Your task to perform on an android device: Clear the cart on amazon. Add acer nitro to the cart on amazon, then select checkout. Image 0: 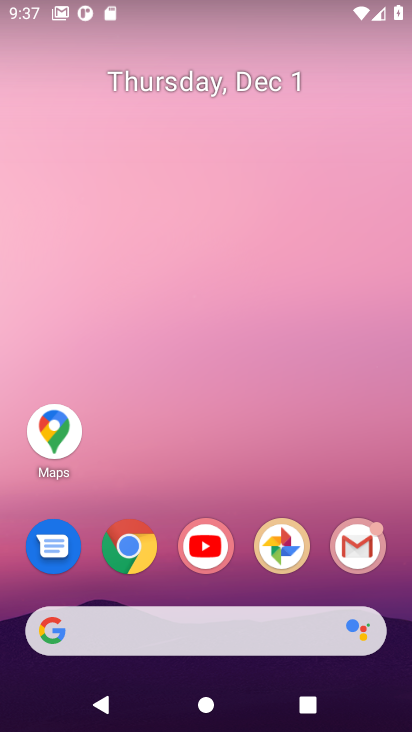
Step 0: click (131, 561)
Your task to perform on an android device: Clear the cart on amazon. Add acer nitro to the cart on amazon, then select checkout. Image 1: 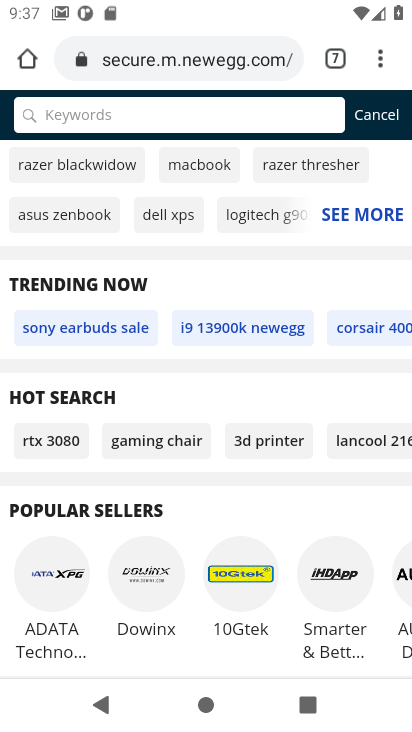
Step 1: click (142, 65)
Your task to perform on an android device: Clear the cart on amazon. Add acer nitro to the cart on amazon, then select checkout. Image 2: 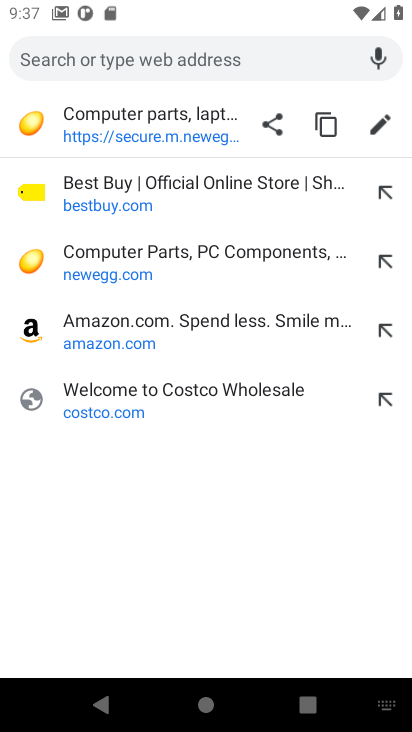
Step 2: click (70, 328)
Your task to perform on an android device: Clear the cart on amazon. Add acer nitro to the cart on amazon, then select checkout. Image 3: 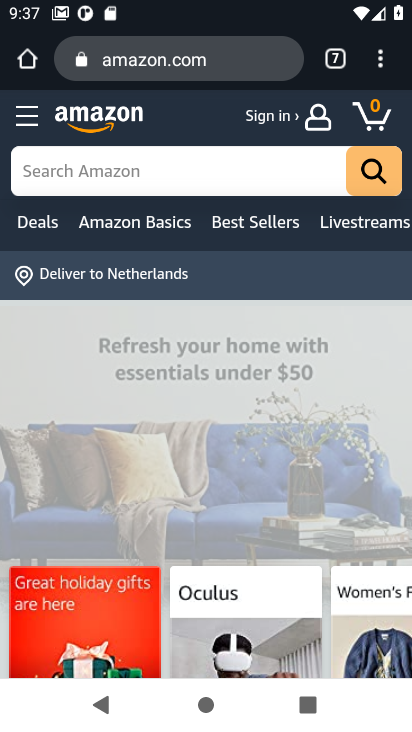
Step 3: click (368, 114)
Your task to perform on an android device: Clear the cart on amazon. Add acer nitro to the cart on amazon, then select checkout. Image 4: 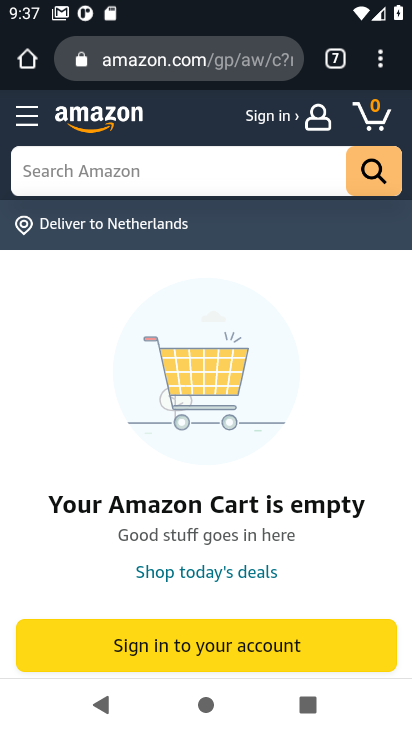
Step 4: click (57, 174)
Your task to perform on an android device: Clear the cart on amazon. Add acer nitro to the cart on amazon, then select checkout. Image 5: 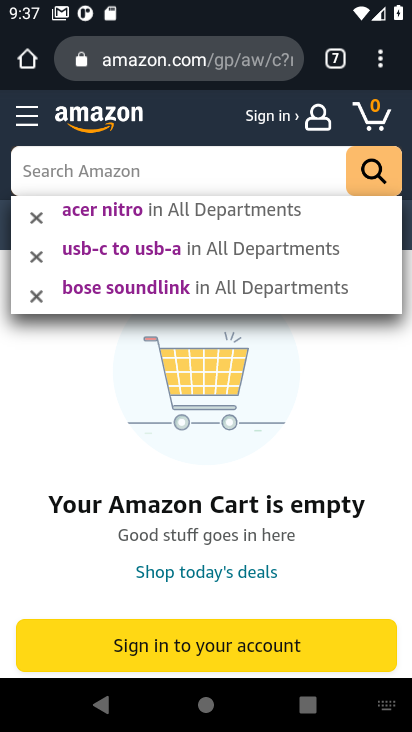
Step 5: type "acer nitro"
Your task to perform on an android device: Clear the cart on amazon. Add acer nitro to the cart on amazon, then select checkout. Image 6: 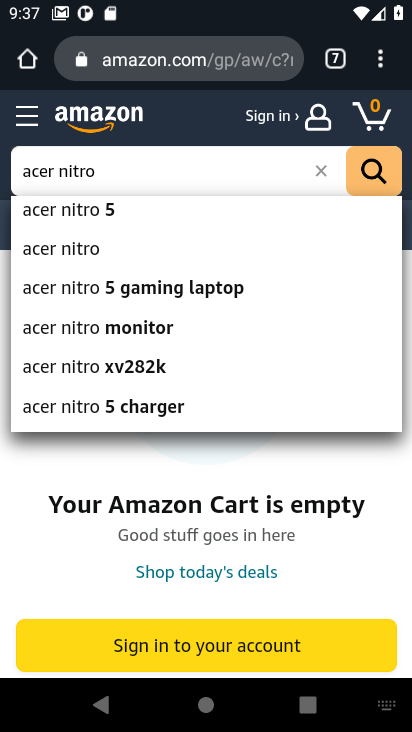
Step 6: click (88, 255)
Your task to perform on an android device: Clear the cart on amazon. Add acer nitro to the cart on amazon, then select checkout. Image 7: 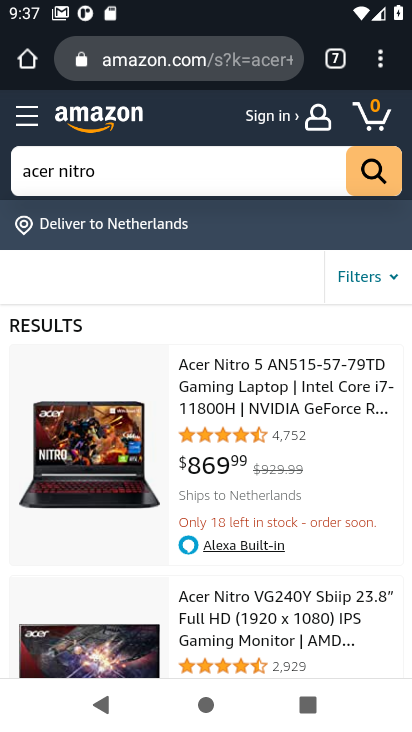
Step 7: click (218, 403)
Your task to perform on an android device: Clear the cart on amazon. Add acer nitro to the cart on amazon, then select checkout. Image 8: 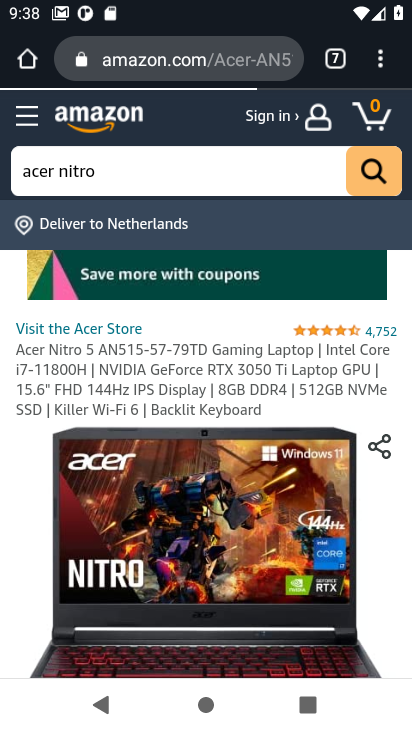
Step 8: drag from (199, 576) to (196, 193)
Your task to perform on an android device: Clear the cart on amazon. Add acer nitro to the cart on amazon, then select checkout. Image 9: 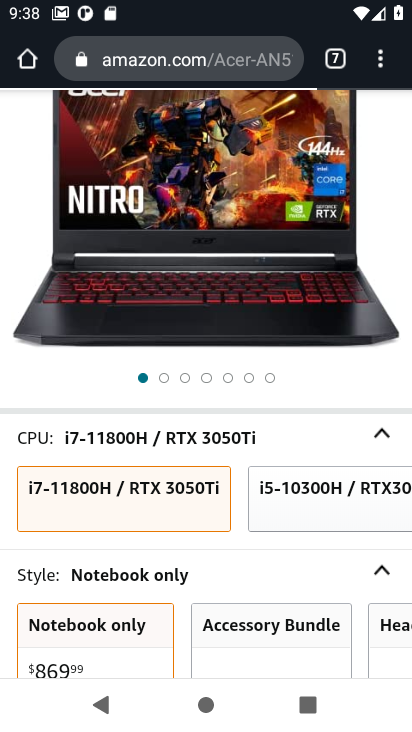
Step 9: drag from (192, 513) to (186, 256)
Your task to perform on an android device: Clear the cart on amazon. Add acer nitro to the cart on amazon, then select checkout. Image 10: 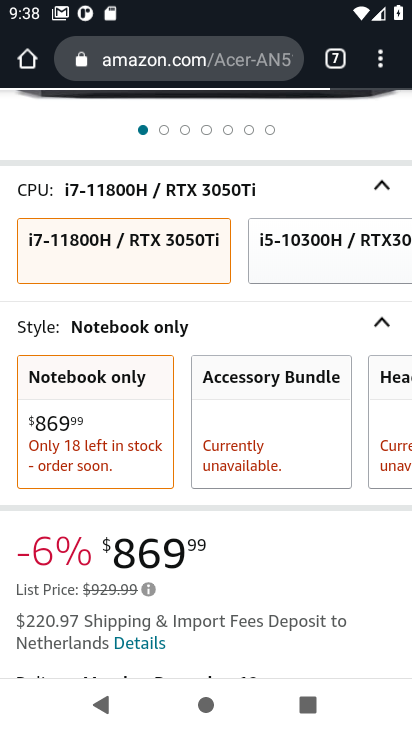
Step 10: drag from (187, 415) to (164, 150)
Your task to perform on an android device: Clear the cart on amazon. Add acer nitro to the cart on amazon, then select checkout. Image 11: 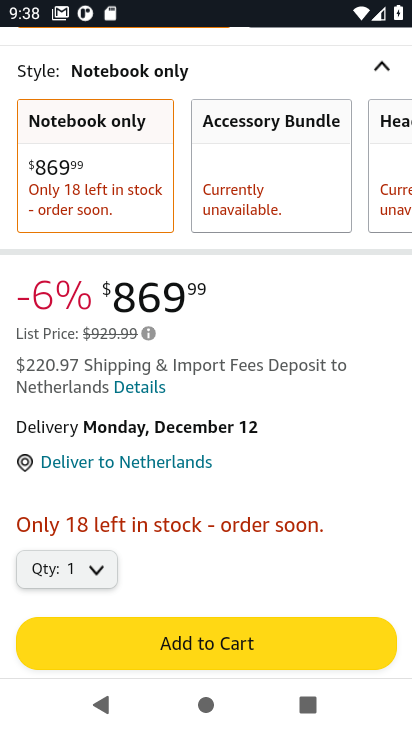
Step 11: drag from (175, 401) to (172, 189)
Your task to perform on an android device: Clear the cart on amazon. Add acer nitro to the cart on amazon, then select checkout. Image 12: 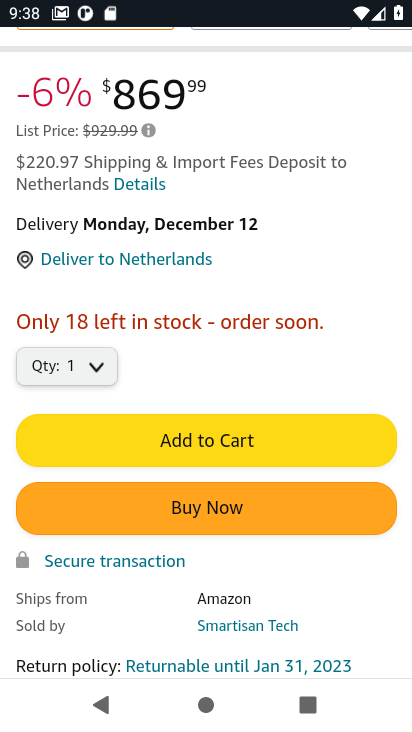
Step 12: click (174, 443)
Your task to perform on an android device: Clear the cart on amazon. Add acer nitro to the cart on amazon, then select checkout. Image 13: 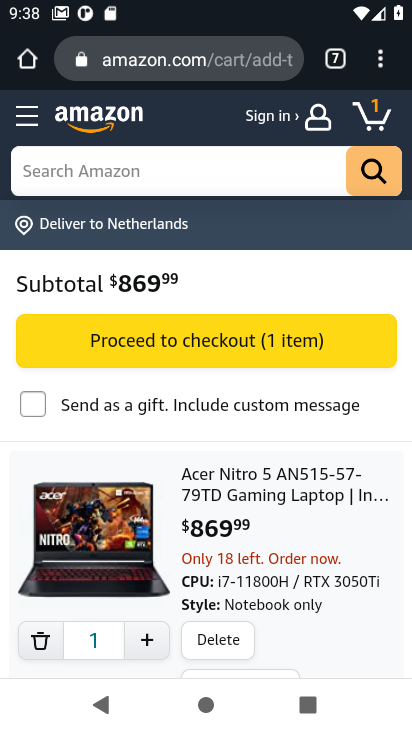
Step 13: click (194, 346)
Your task to perform on an android device: Clear the cart on amazon. Add acer nitro to the cart on amazon, then select checkout. Image 14: 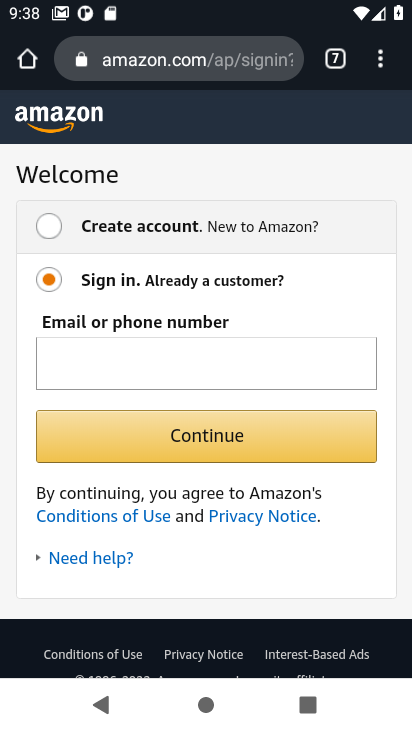
Step 14: task complete